Your task to perform on an android device: open app "DuckDuckGo Privacy Browser" (install if not already installed) Image 0: 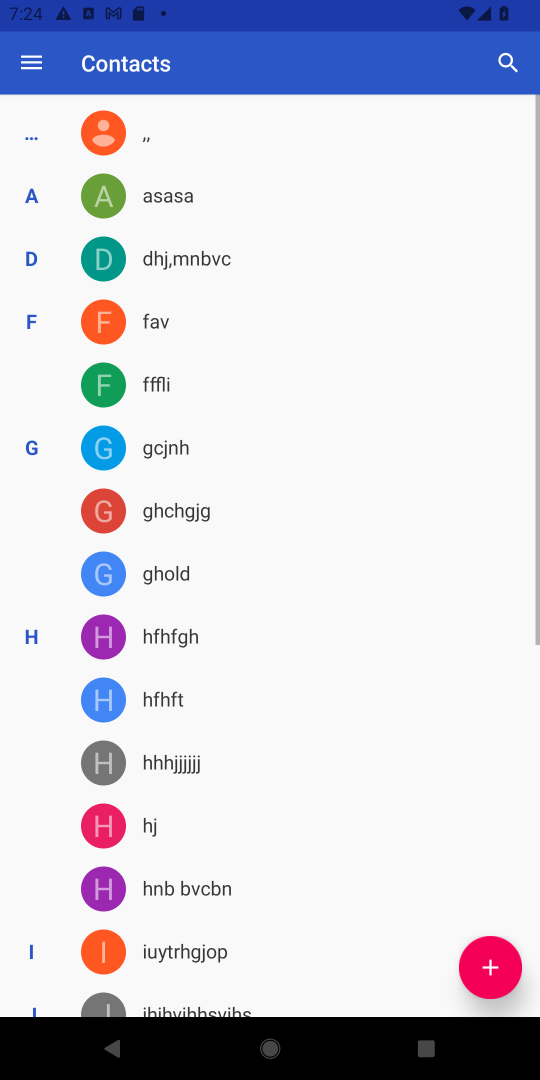
Step 0: press home button
Your task to perform on an android device: open app "DuckDuckGo Privacy Browser" (install if not already installed) Image 1: 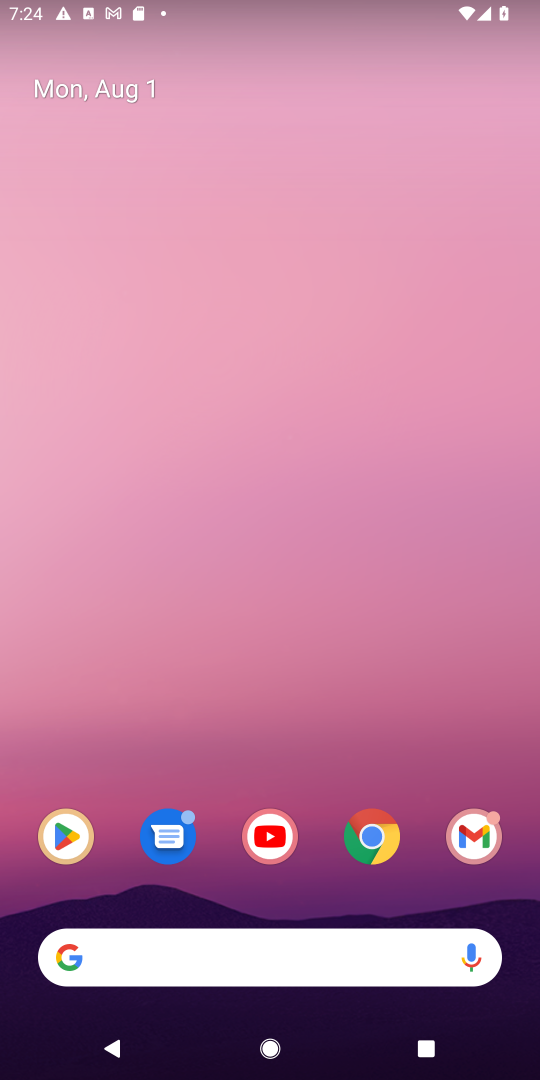
Step 1: click (48, 839)
Your task to perform on an android device: open app "DuckDuckGo Privacy Browser" (install if not already installed) Image 2: 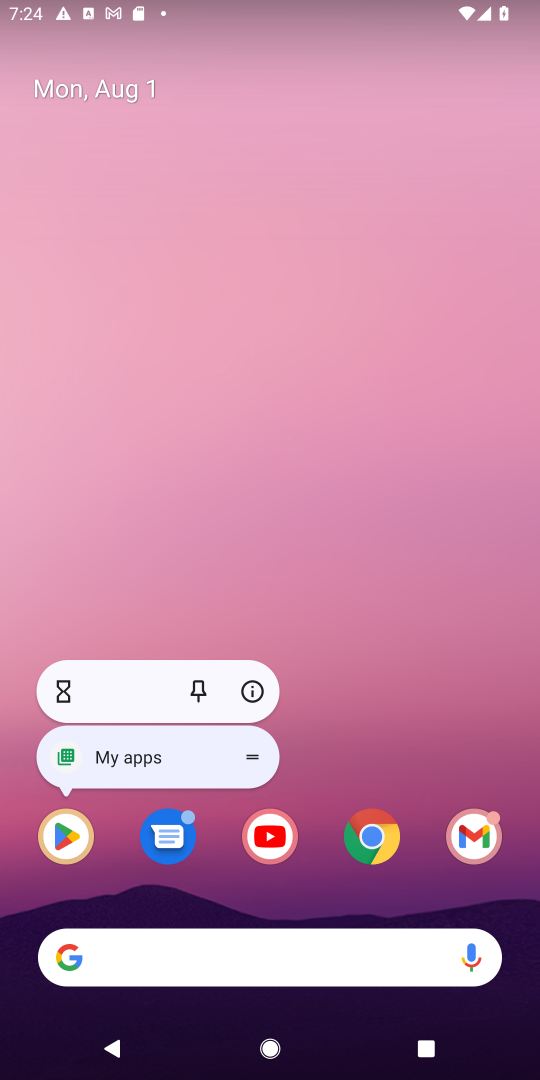
Step 2: click (63, 836)
Your task to perform on an android device: open app "DuckDuckGo Privacy Browser" (install if not already installed) Image 3: 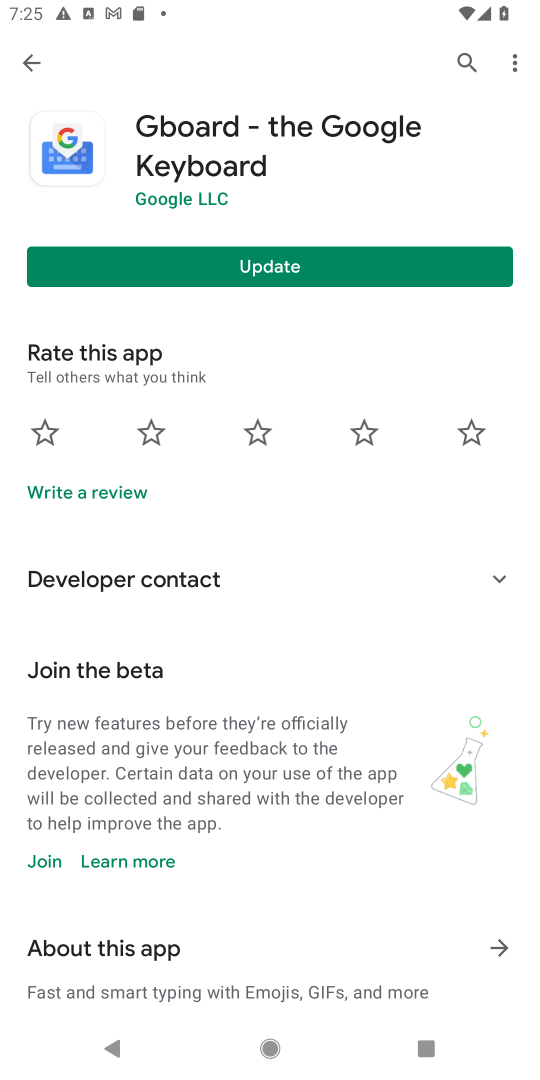
Step 3: click (461, 59)
Your task to perform on an android device: open app "DuckDuckGo Privacy Browser" (install if not already installed) Image 4: 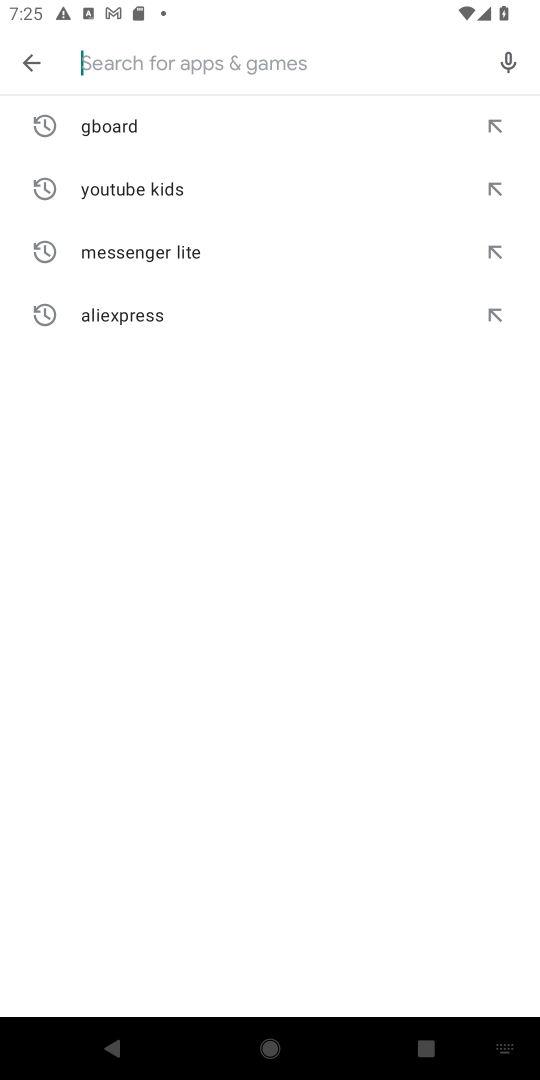
Step 4: type "DuckDuckGo Privacy Browser"
Your task to perform on an android device: open app "DuckDuckGo Privacy Browser" (install if not already installed) Image 5: 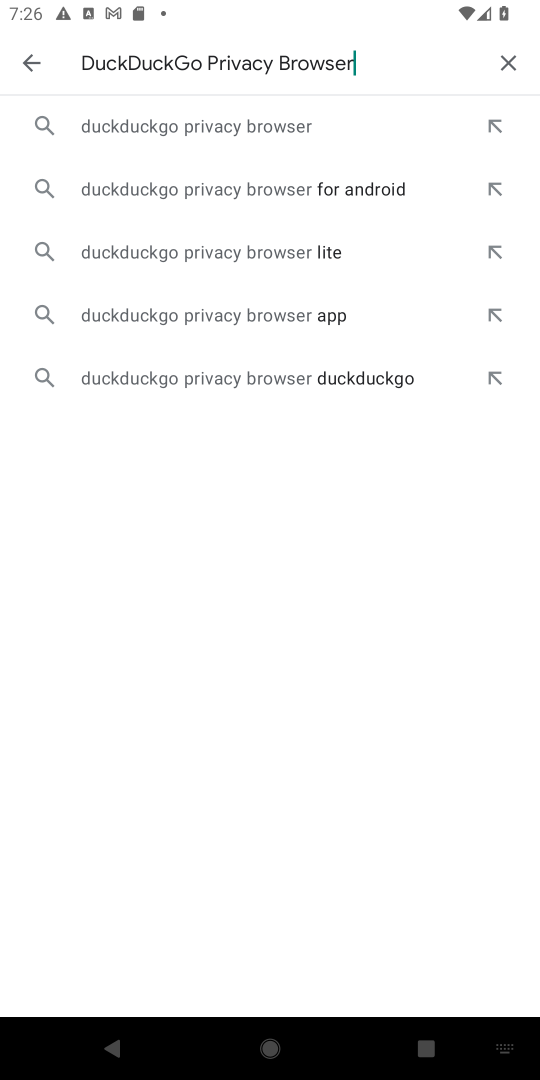
Step 5: click (206, 130)
Your task to perform on an android device: open app "DuckDuckGo Privacy Browser" (install if not already installed) Image 6: 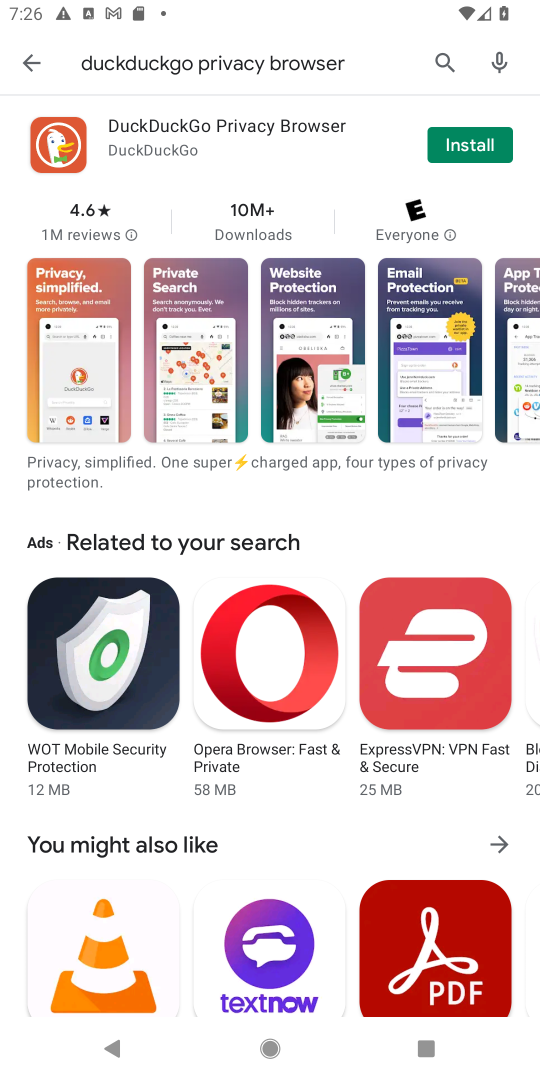
Step 6: click (473, 144)
Your task to perform on an android device: open app "DuckDuckGo Privacy Browser" (install if not already installed) Image 7: 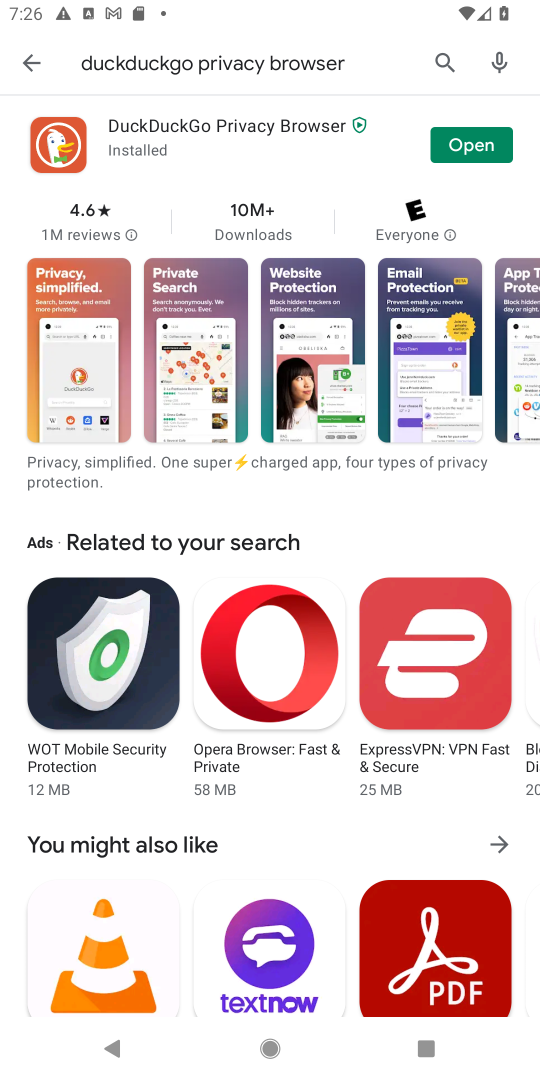
Step 7: task complete